Your task to perform on an android device: refresh tabs in the chrome app Image 0: 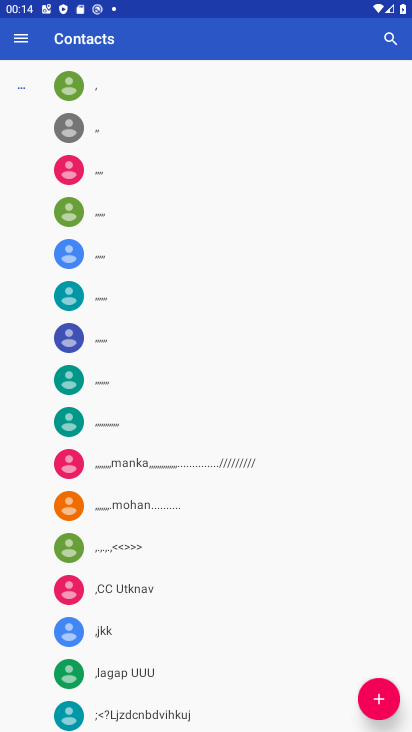
Step 0: press home button
Your task to perform on an android device: refresh tabs in the chrome app Image 1: 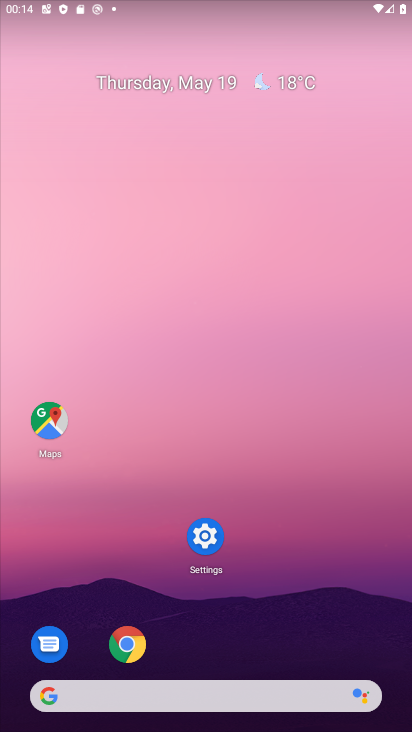
Step 1: click (116, 644)
Your task to perform on an android device: refresh tabs in the chrome app Image 2: 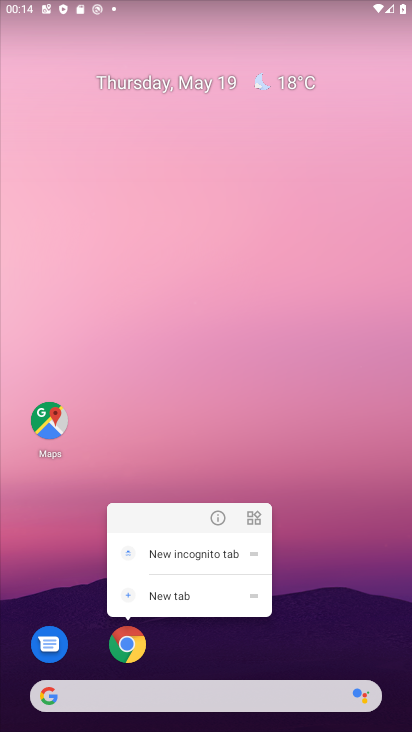
Step 2: click (118, 641)
Your task to perform on an android device: refresh tabs in the chrome app Image 3: 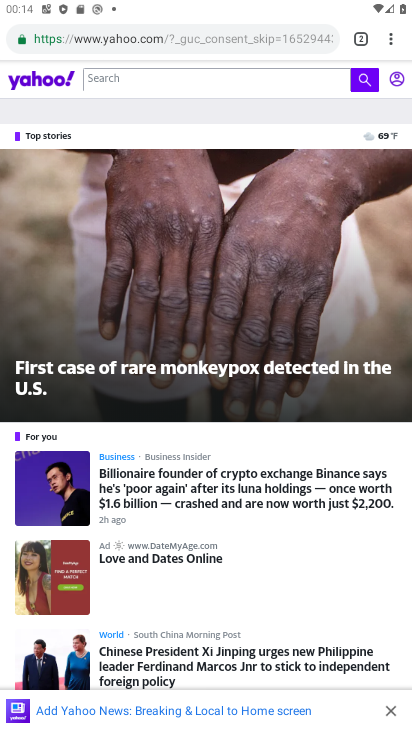
Step 3: click (396, 31)
Your task to perform on an android device: refresh tabs in the chrome app Image 4: 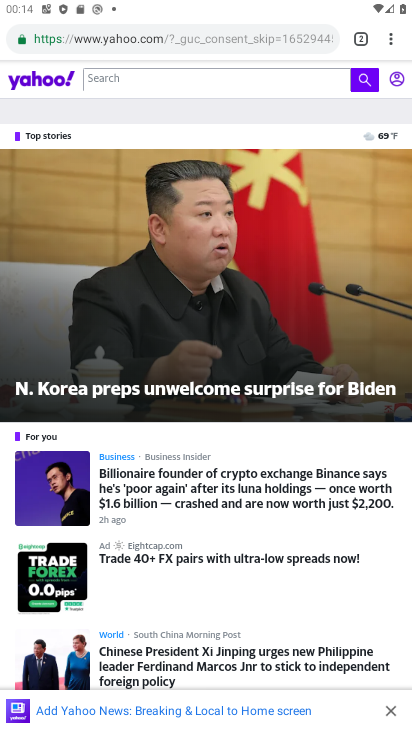
Step 4: task complete